Your task to perform on an android device: turn off smart reply in the gmail app Image 0: 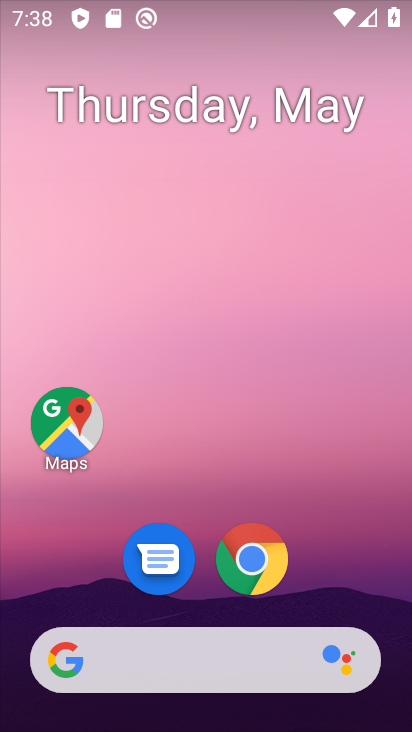
Step 0: drag from (309, 533) to (287, 300)
Your task to perform on an android device: turn off smart reply in the gmail app Image 1: 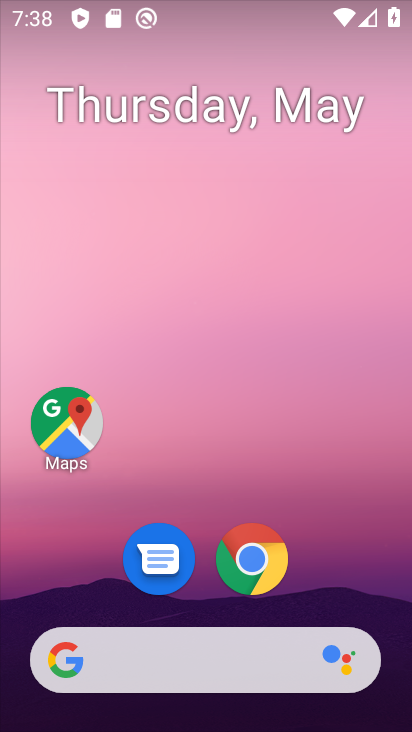
Step 1: drag from (290, 567) to (249, 169)
Your task to perform on an android device: turn off smart reply in the gmail app Image 2: 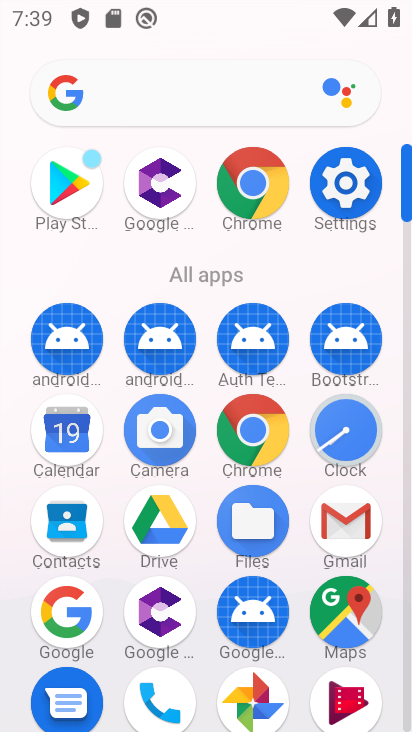
Step 2: click (360, 511)
Your task to perform on an android device: turn off smart reply in the gmail app Image 3: 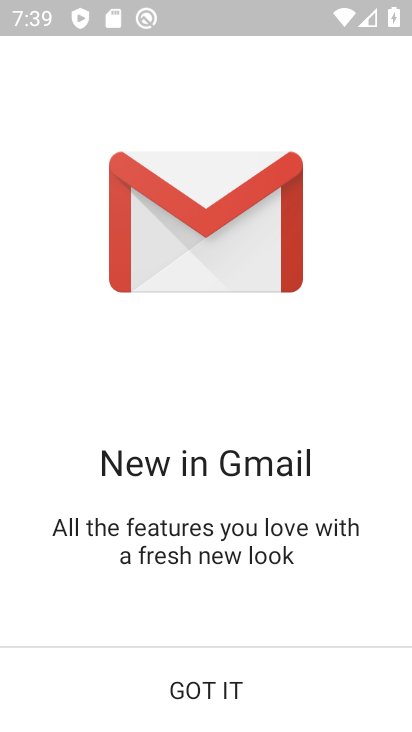
Step 3: click (262, 687)
Your task to perform on an android device: turn off smart reply in the gmail app Image 4: 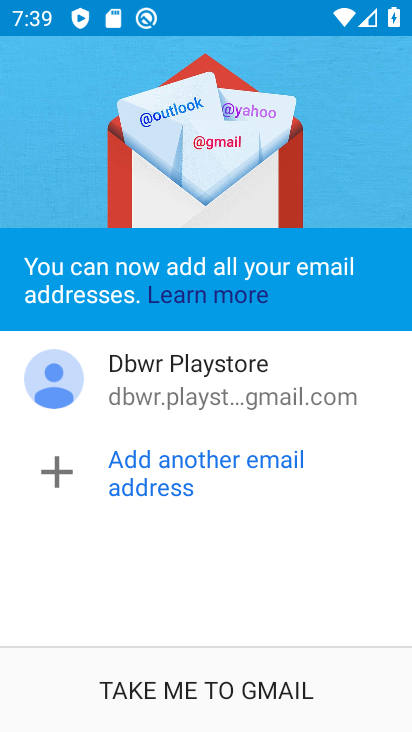
Step 4: click (241, 680)
Your task to perform on an android device: turn off smart reply in the gmail app Image 5: 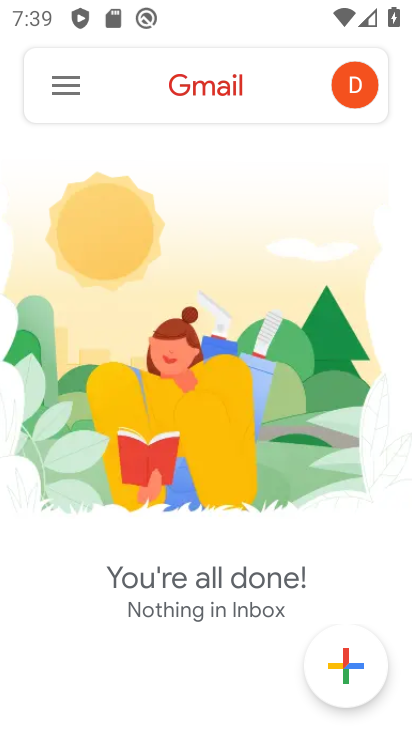
Step 5: click (66, 89)
Your task to perform on an android device: turn off smart reply in the gmail app Image 6: 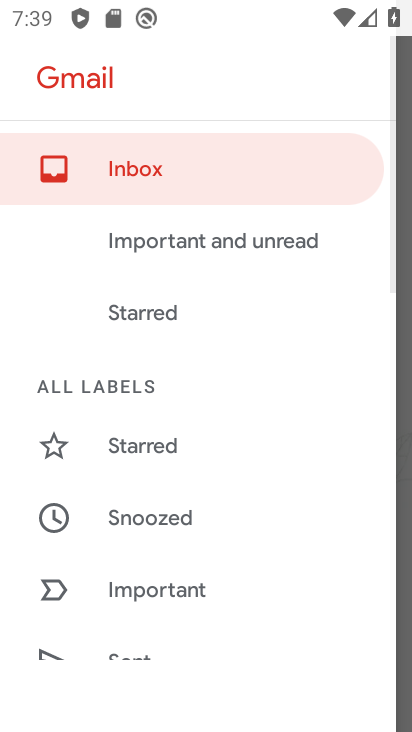
Step 6: drag from (165, 572) to (169, 225)
Your task to perform on an android device: turn off smart reply in the gmail app Image 7: 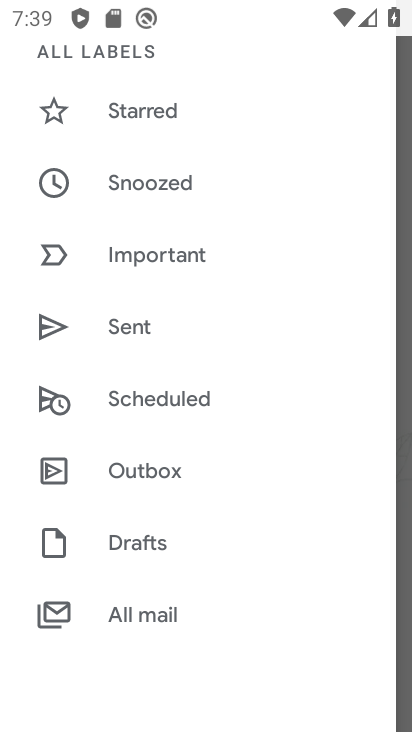
Step 7: drag from (172, 592) to (225, 292)
Your task to perform on an android device: turn off smart reply in the gmail app Image 8: 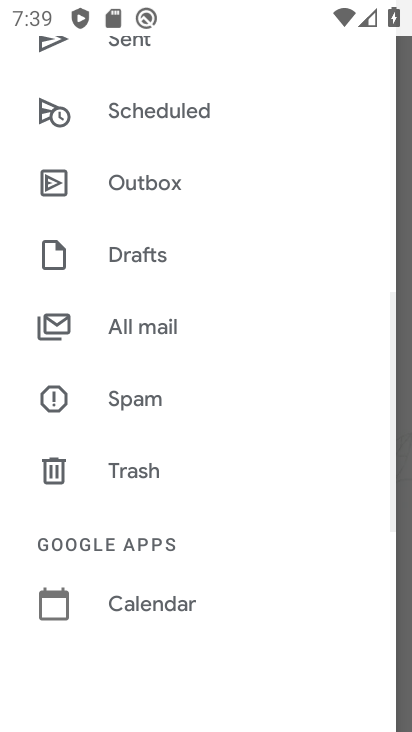
Step 8: drag from (175, 622) to (223, 243)
Your task to perform on an android device: turn off smart reply in the gmail app Image 9: 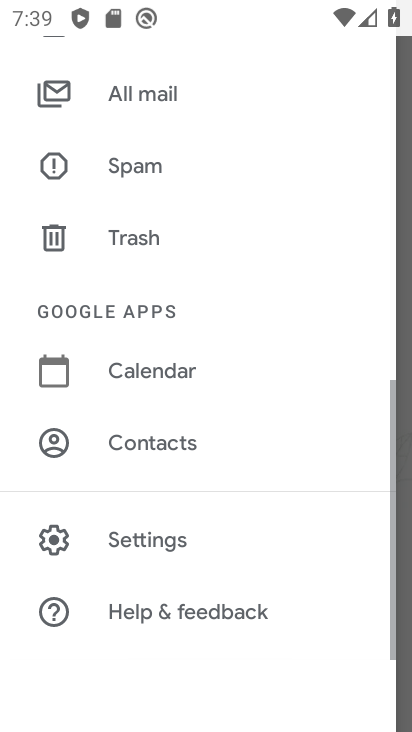
Step 9: click (176, 527)
Your task to perform on an android device: turn off smart reply in the gmail app Image 10: 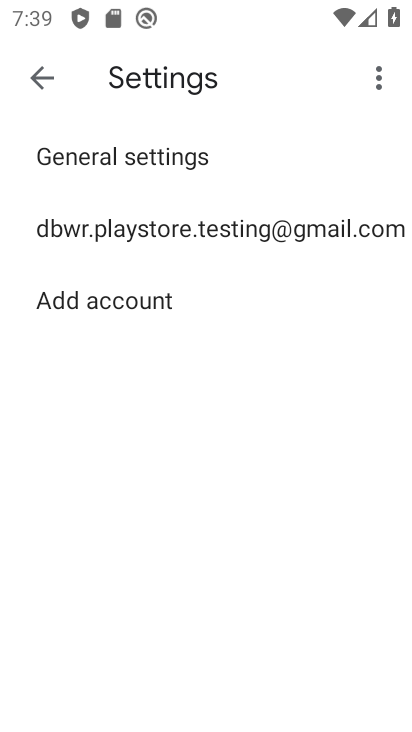
Step 10: click (245, 222)
Your task to perform on an android device: turn off smart reply in the gmail app Image 11: 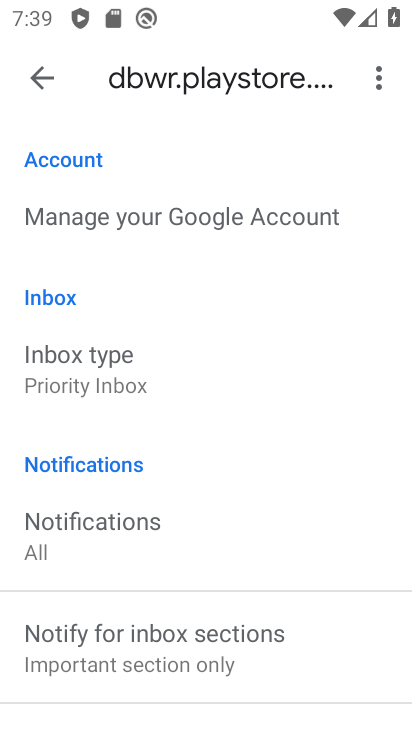
Step 11: drag from (268, 532) to (369, 234)
Your task to perform on an android device: turn off smart reply in the gmail app Image 12: 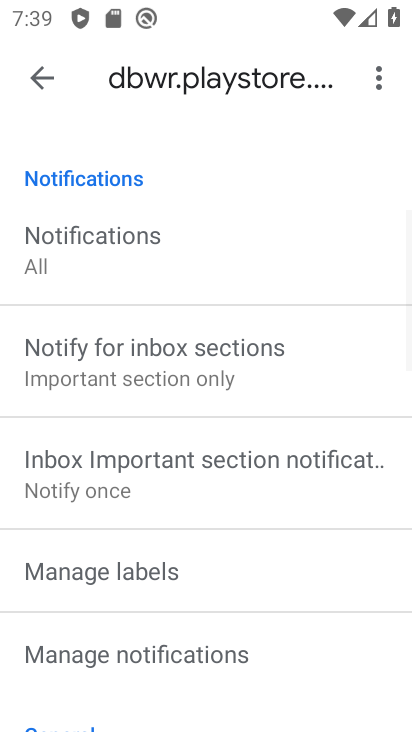
Step 12: drag from (294, 628) to (300, 214)
Your task to perform on an android device: turn off smart reply in the gmail app Image 13: 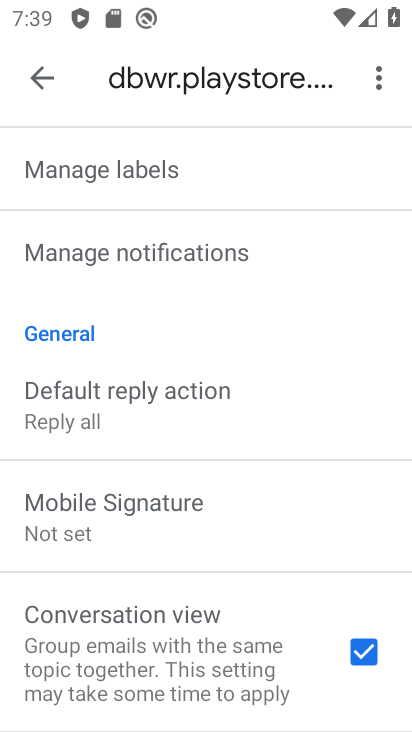
Step 13: drag from (167, 606) to (189, 277)
Your task to perform on an android device: turn off smart reply in the gmail app Image 14: 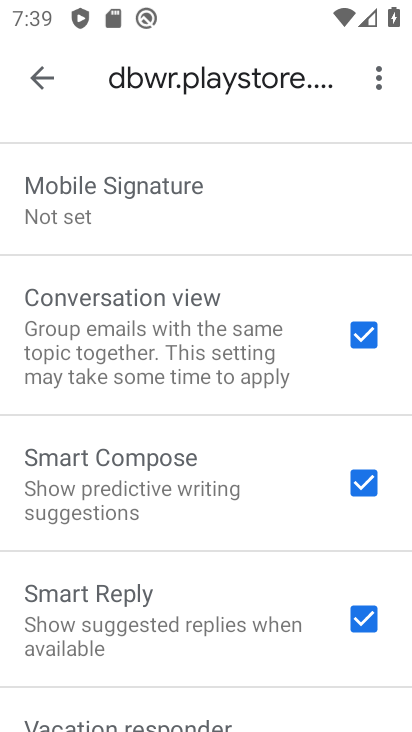
Step 14: click (367, 624)
Your task to perform on an android device: turn off smart reply in the gmail app Image 15: 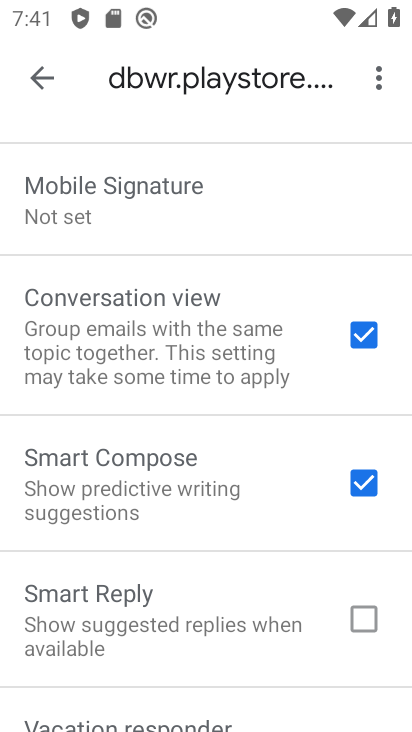
Step 15: task complete